Your task to perform on an android device: turn off priority inbox in the gmail app Image 0: 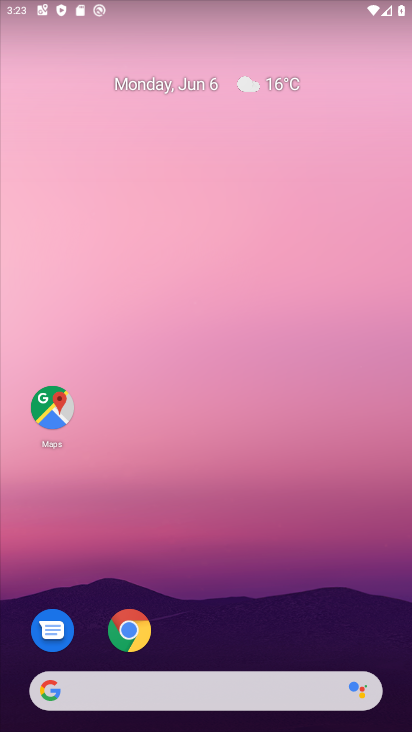
Step 0: drag from (191, 582) to (274, 128)
Your task to perform on an android device: turn off priority inbox in the gmail app Image 1: 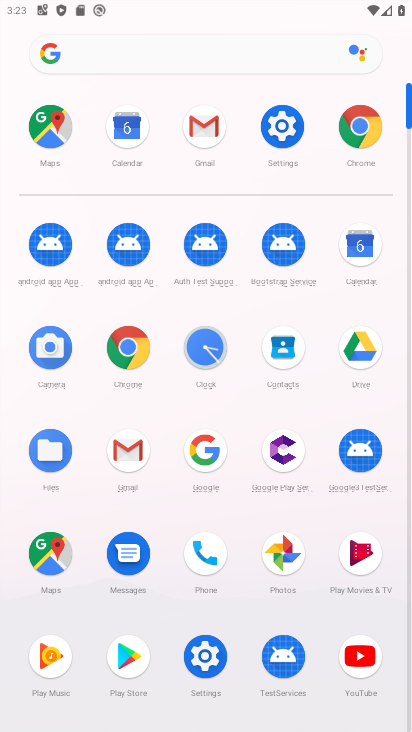
Step 1: click (204, 120)
Your task to perform on an android device: turn off priority inbox in the gmail app Image 2: 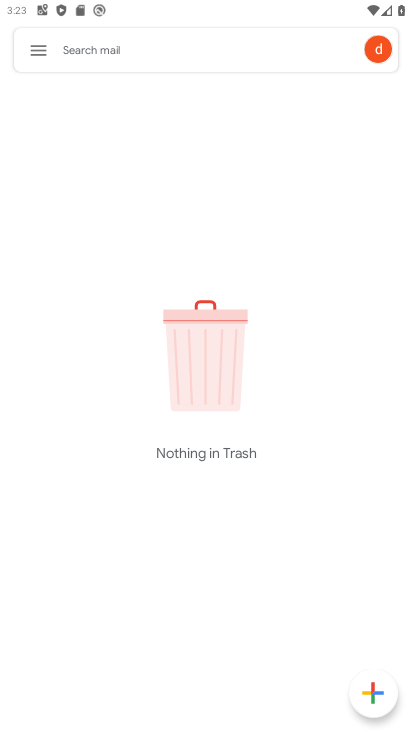
Step 2: click (31, 47)
Your task to perform on an android device: turn off priority inbox in the gmail app Image 3: 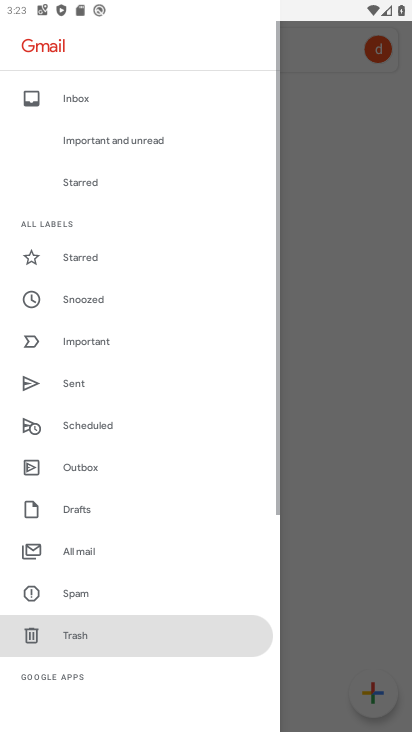
Step 3: drag from (122, 610) to (170, 108)
Your task to perform on an android device: turn off priority inbox in the gmail app Image 4: 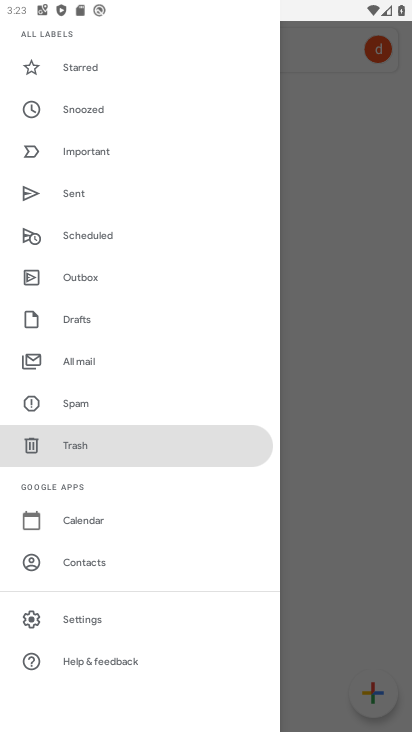
Step 4: click (69, 616)
Your task to perform on an android device: turn off priority inbox in the gmail app Image 5: 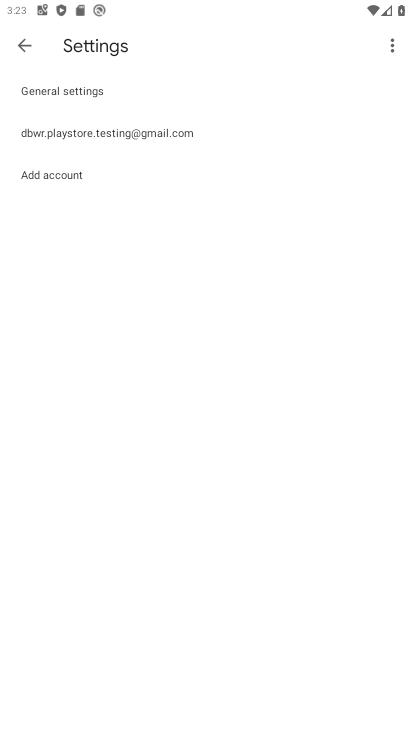
Step 5: click (110, 142)
Your task to perform on an android device: turn off priority inbox in the gmail app Image 6: 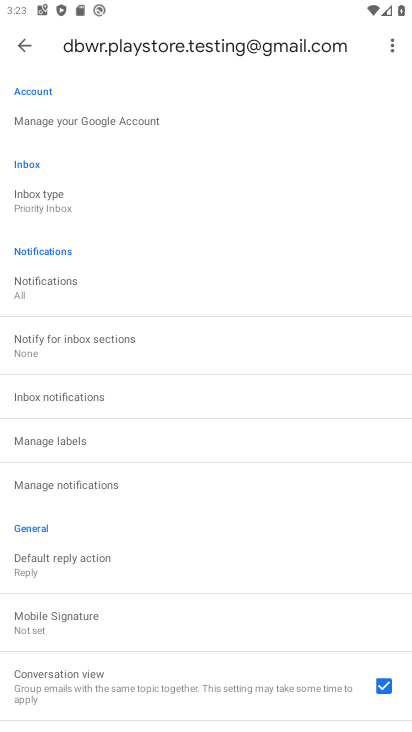
Step 6: click (73, 207)
Your task to perform on an android device: turn off priority inbox in the gmail app Image 7: 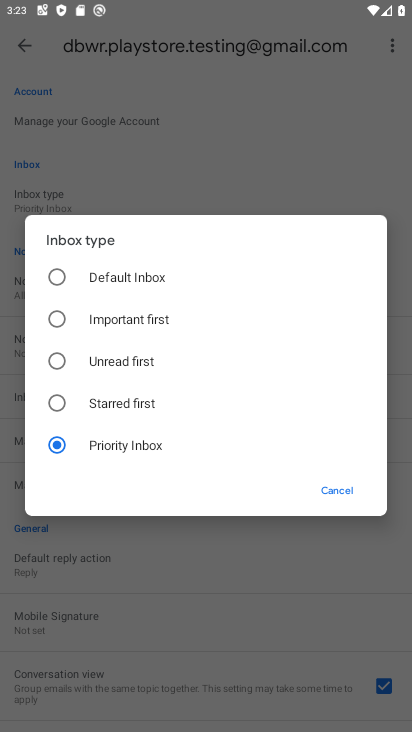
Step 7: click (67, 279)
Your task to perform on an android device: turn off priority inbox in the gmail app Image 8: 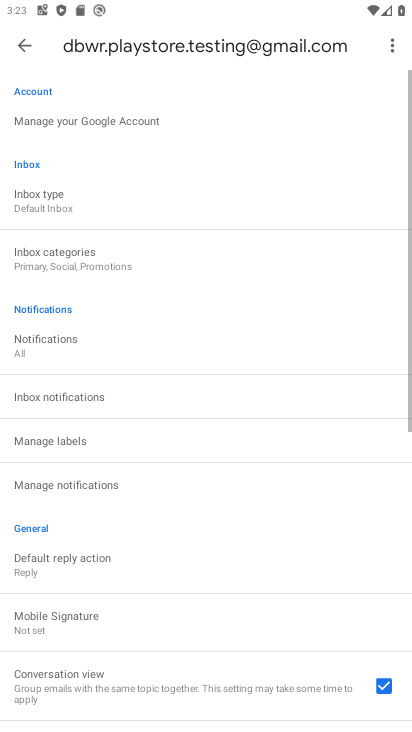
Step 8: task complete